Your task to perform on an android device: Open the web browser Image 0: 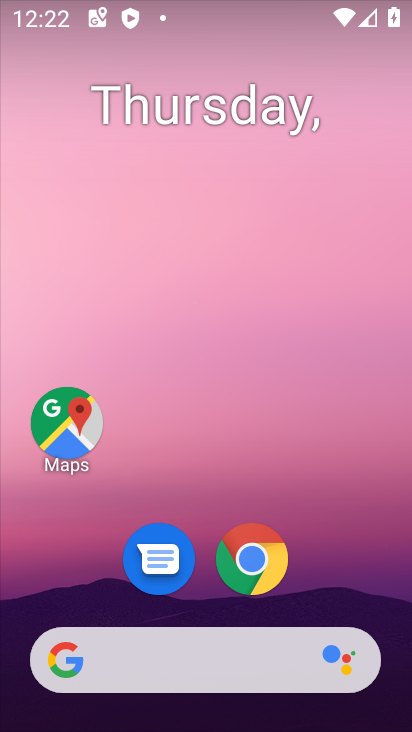
Step 0: click (261, 562)
Your task to perform on an android device: Open the web browser Image 1: 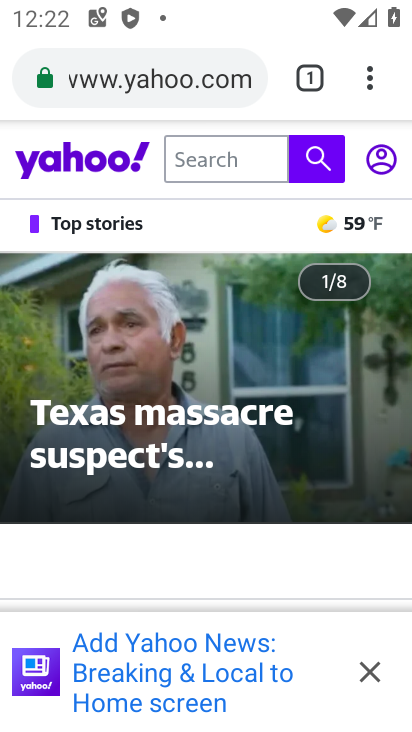
Step 1: task complete